Your task to perform on an android device: turn on airplane mode Image 0: 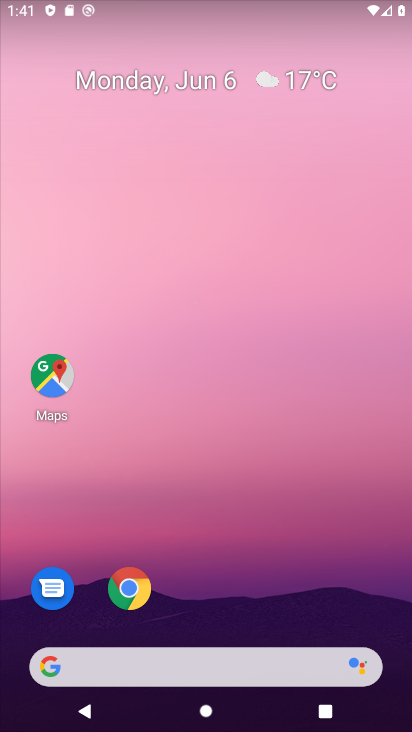
Step 0: drag from (188, 654) to (195, 14)
Your task to perform on an android device: turn on airplane mode Image 1: 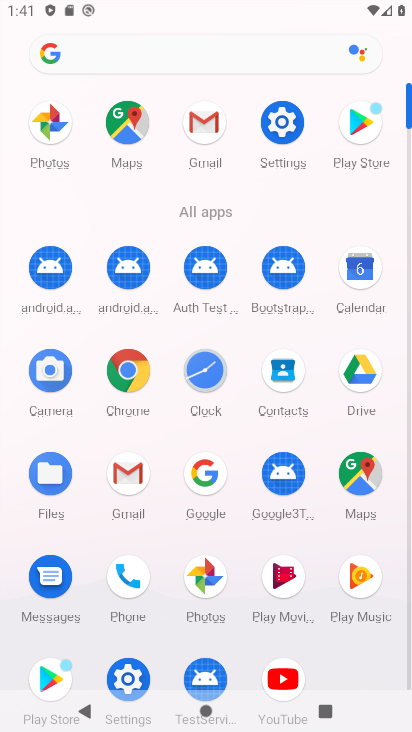
Step 1: click (277, 117)
Your task to perform on an android device: turn on airplane mode Image 2: 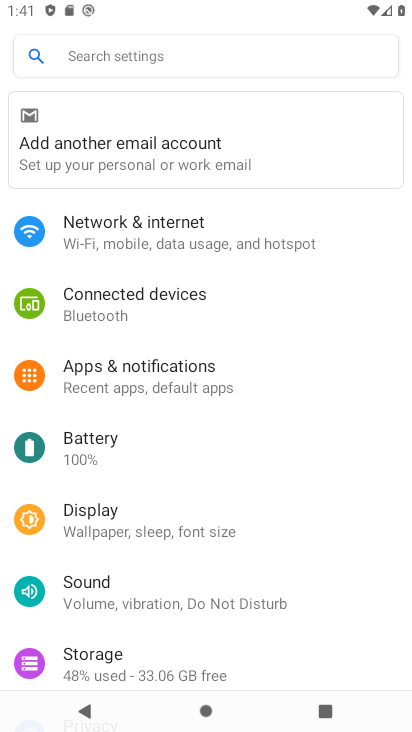
Step 2: click (160, 235)
Your task to perform on an android device: turn on airplane mode Image 3: 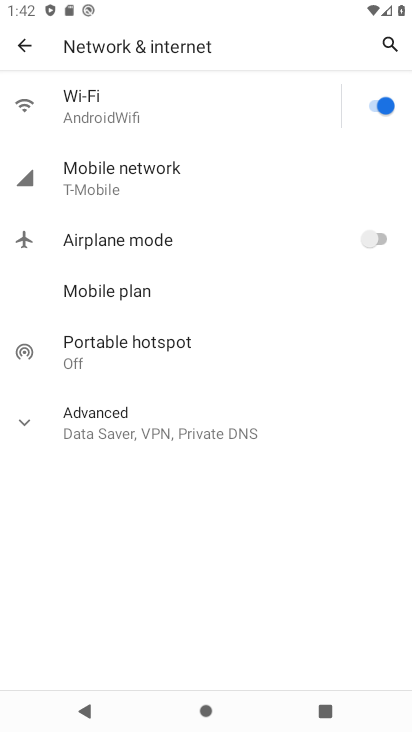
Step 3: click (384, 232)
Your task to perform on an android device: turn on airplane mode Image 4: 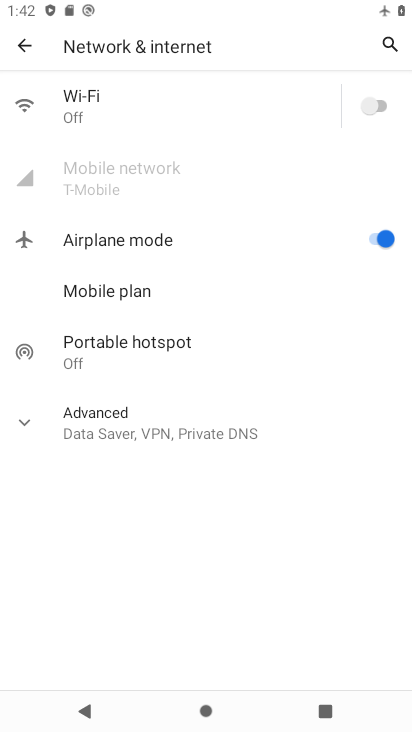
Step 4: task complete